Your task to perform on an android device: read, delete, or share a saved page in the chrome app Image 0: 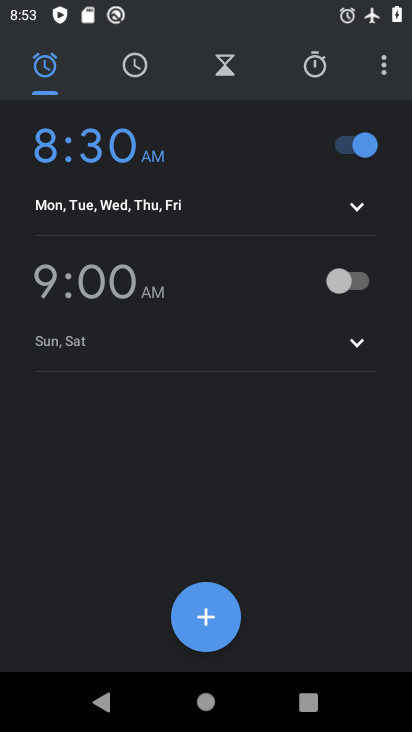
Step 0: press home button
Your task to perform on an android device: read, delete, or share a saved page in the chrome app Image 1: 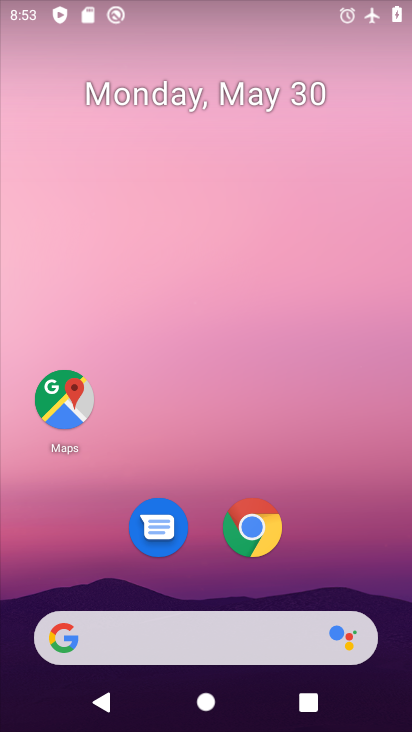
Step 1: drag from (274, 644) to (223, 36)
Your task to perform on an android device: read, delete, or share a saved page in the chrome app Image 2: 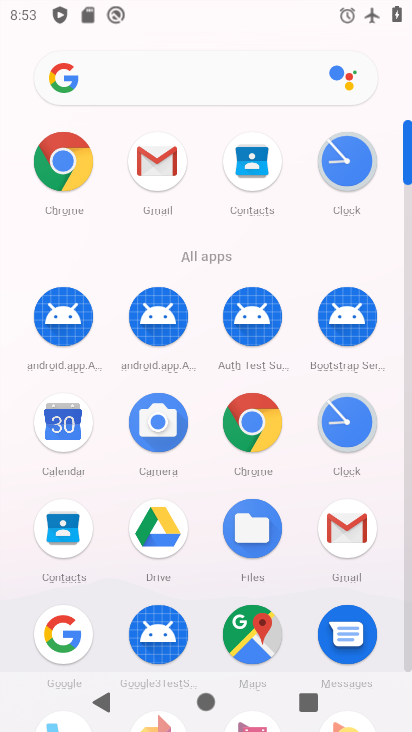
Step 2: click (260, 411)
Your task to perform on an android device: read, delete, or share a saved page in the chrome app Image 3: 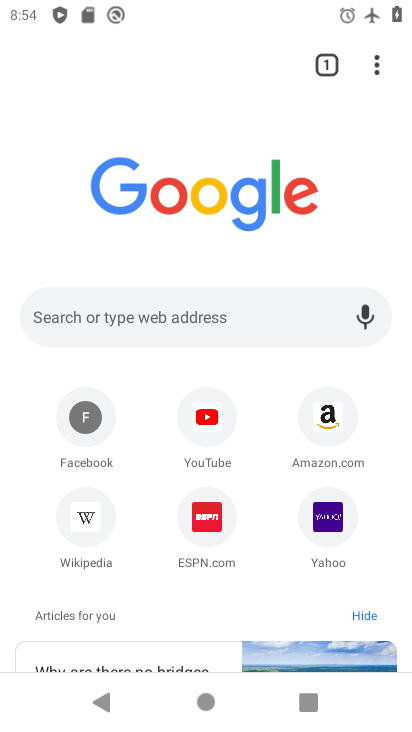
Step 3: click (379, 57)
Your task to perform on an android device: read, delete, or share a saved page in the chrome app Image 4: 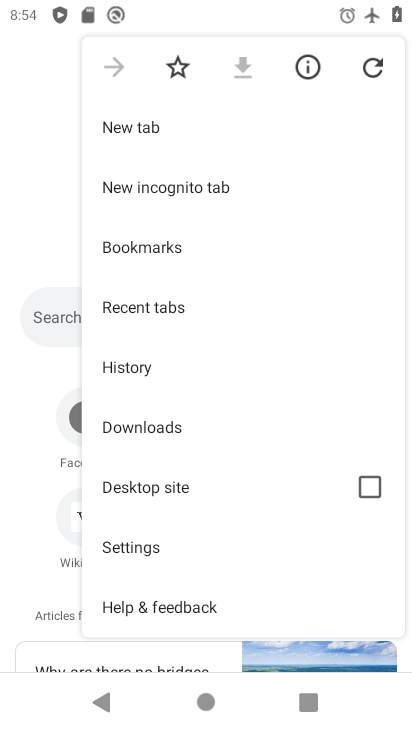
Step 4: click (140, 435)
Your task to perform on an android device: read, delete, or share a saved page in the chrome app Image 5: 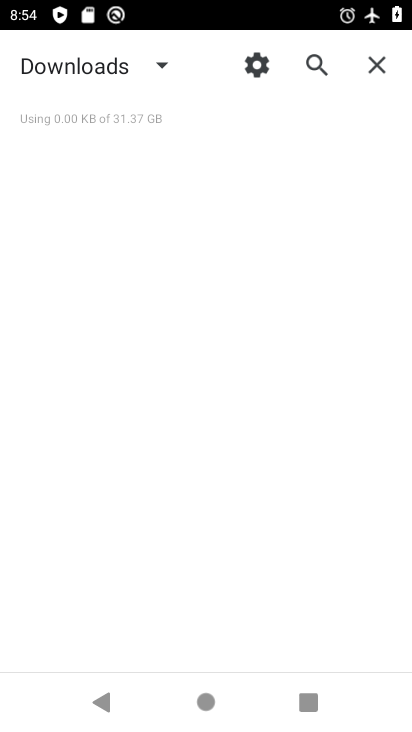
Step 5: task complete